Your task to perform on an android device: change the clock display to analog Image 0: 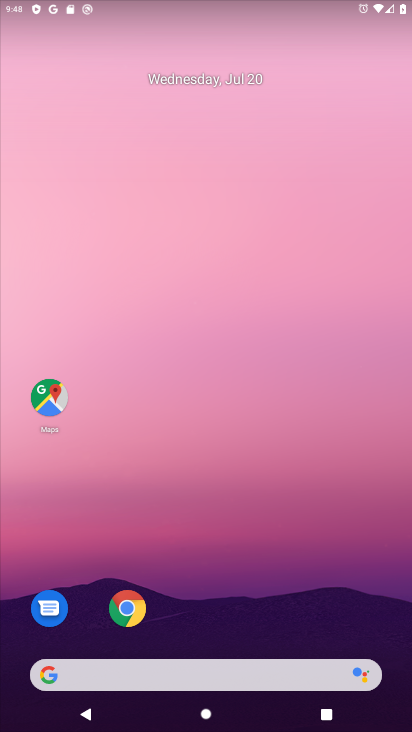
Step 0: press home button
Your task to perform on an android device: change the clock display to analog Image 1: 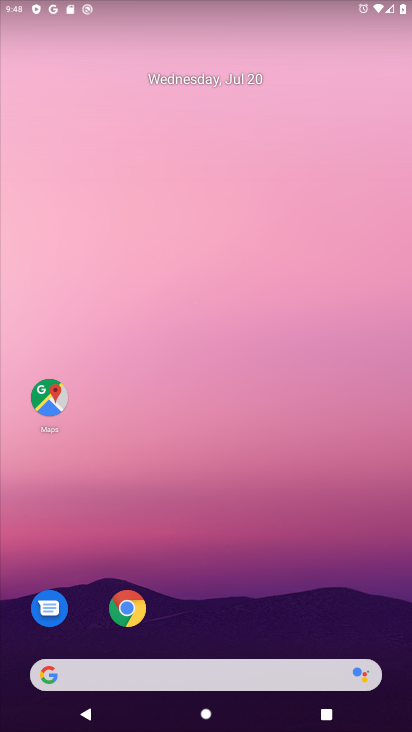
Step 1: drag from (210, 636) to (244, 36)
Your task to perform on an android device: change the clock display to analog Image 2: 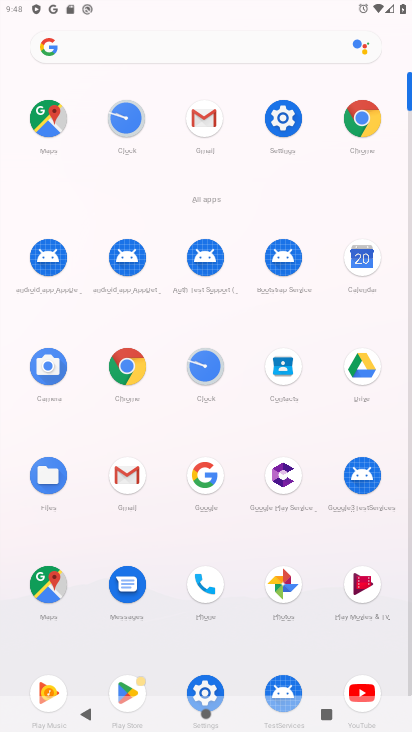
Step 2: click (205, 360)
Your task to perform on an android device: change the clock display to analog Image 3: 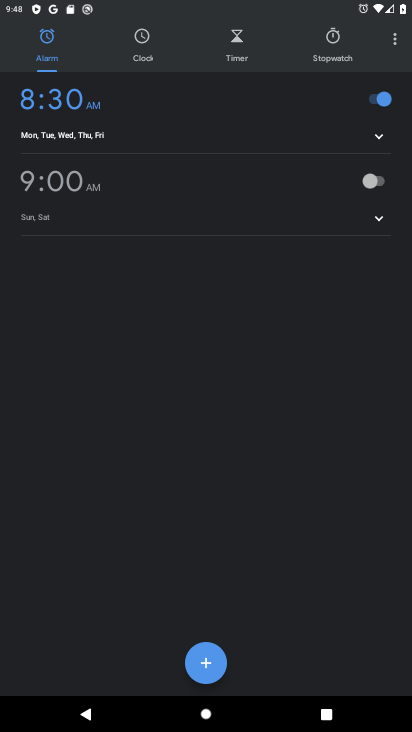
Step 3: click (395, 39)
Your task to perform on an android device: change the clock display to analog Image 4: 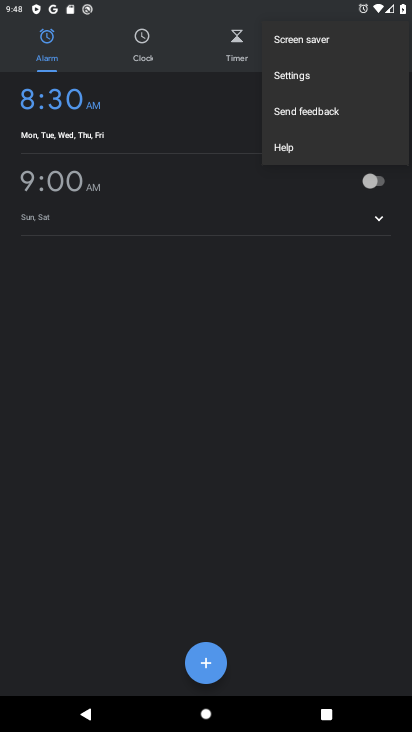
Step 4: click (324, 76)
Your task to perform on an android device: change the clock display to analog Image 5: 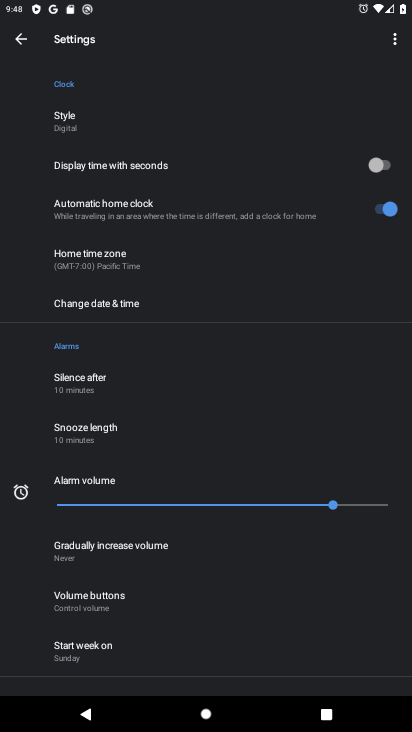
Step 5: click (88, 124)
Your task to perform on an android device: change the clock display to analog Image 6: 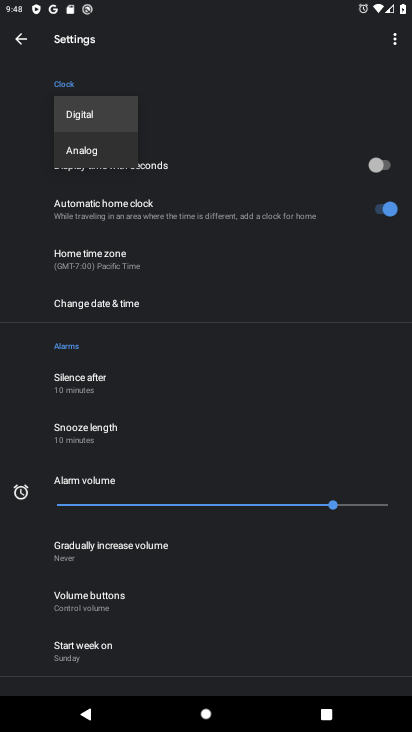
Step 6: click (107, 148)
Your task to perform on an android device: change the clock display to analog Image 7: 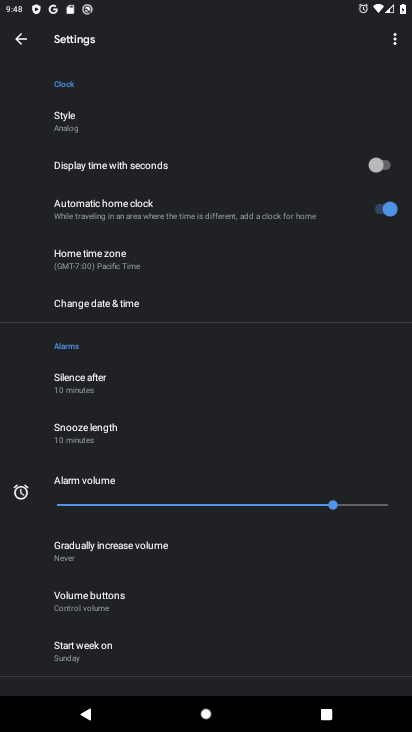
Step 7: task complete